Your task to perform on an android device: When is my next appointment? Image 0: 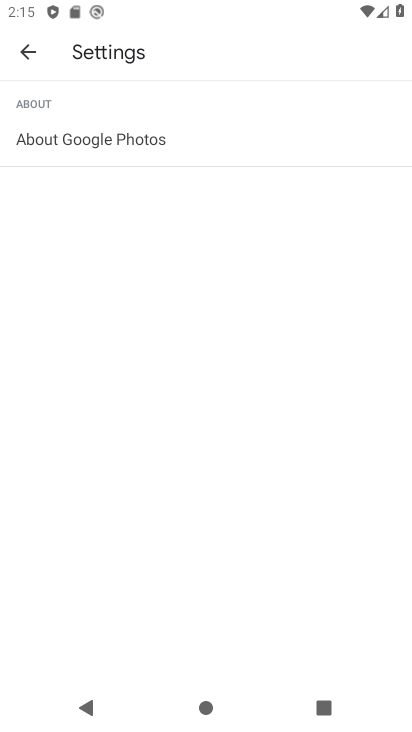
Step 0: press home button
Your task to perform on an android device: When is my next appointment? Image 1: 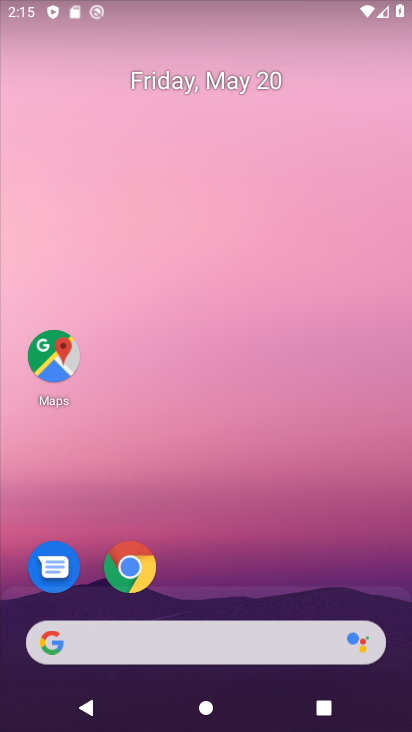
Step 1: drag from (185, 551) to (199, 215)
Your task to perform on an android device: When is my next appointment? Image 2: 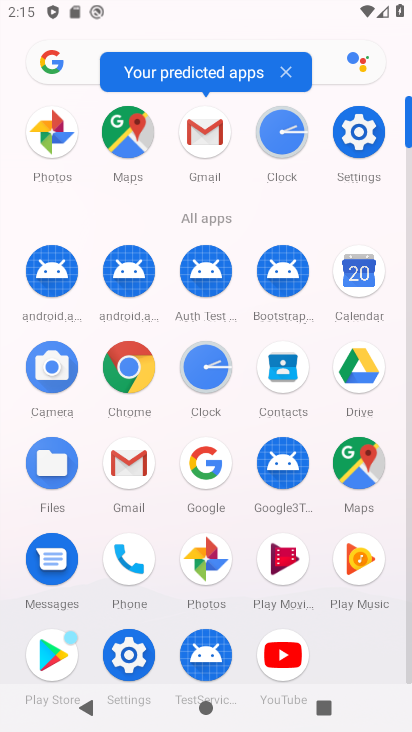
Step 2: click (350, 285)
Your task to perform on an android device: When is my next appointment? Image 3: 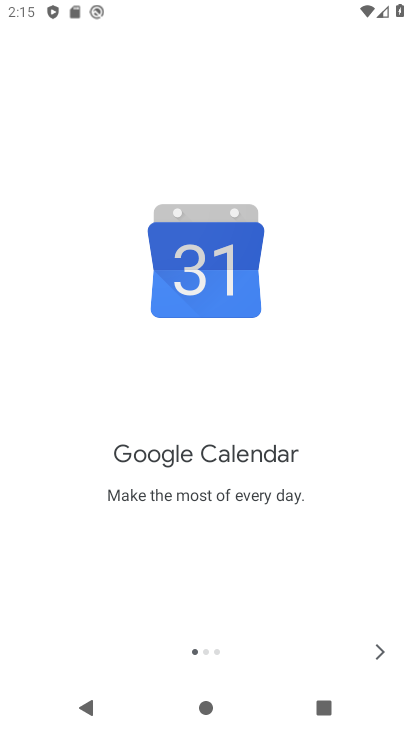
Step 3: click (387, 655)
Your task to perform on an android device: When is my next appointment? Image 4: 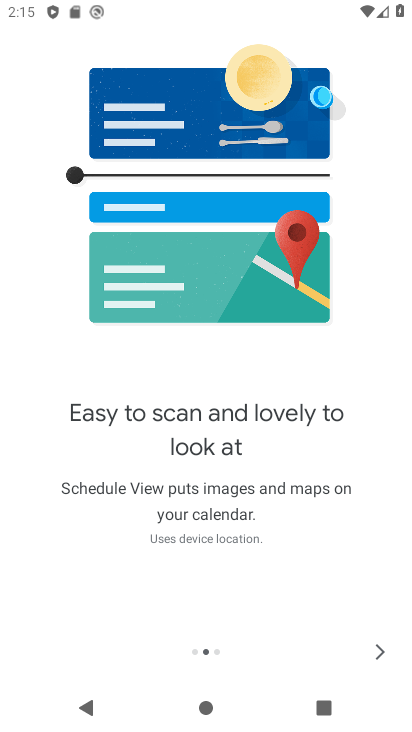
Step 4: click (384, 654)
Your task to perform on an android device: When is my next appointment? Image 5: 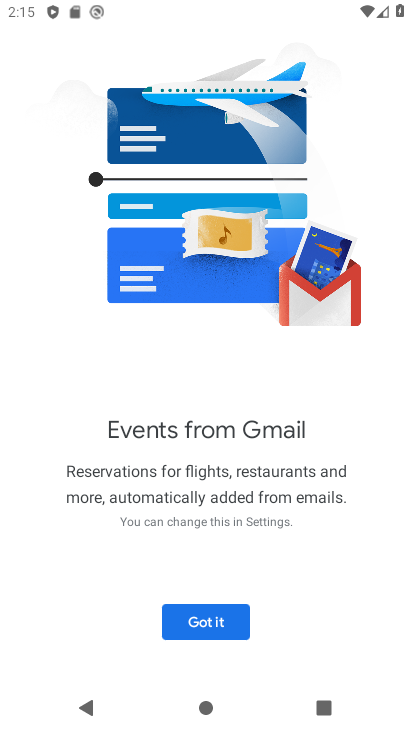
Step 5: click (232, 622)
Your task to perform on an android device: When is my next appointment? Image 6: 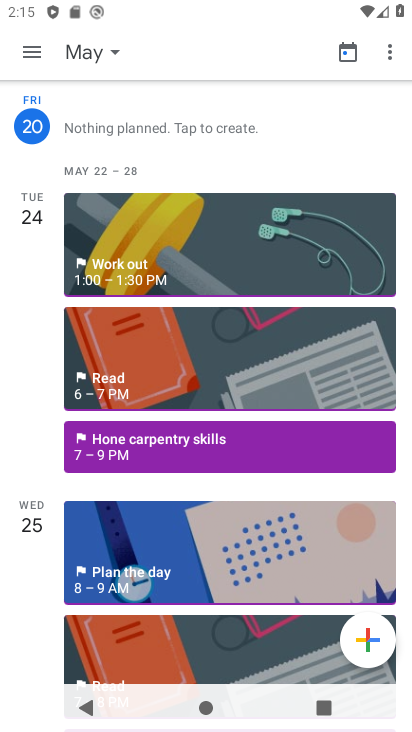
Step 6: click (118, 227)
Your task to perform on an android device: When is my next appointment? Image 7: 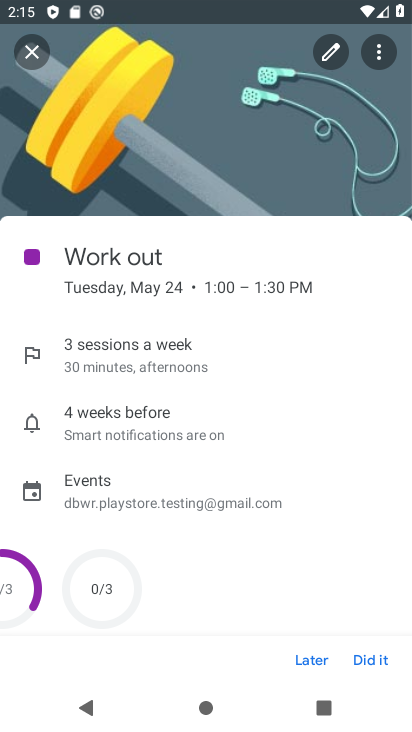
Step 7: task complete